Your task to perform on an android device: Open Google Maps Image 0: 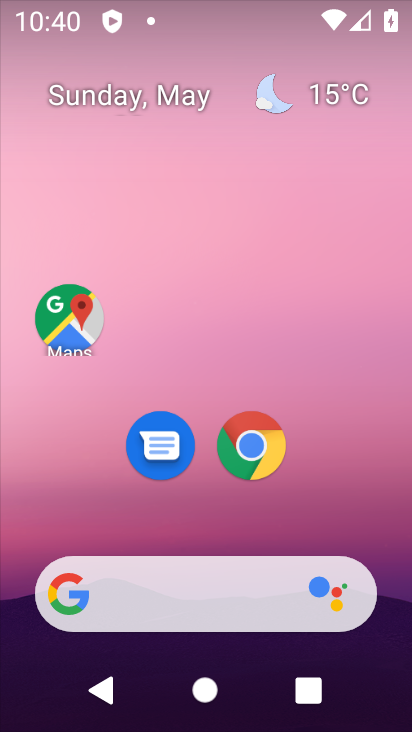
Step 0: click (52, 324)
Your task to perform on an android device: Open Google Maps Image 1: 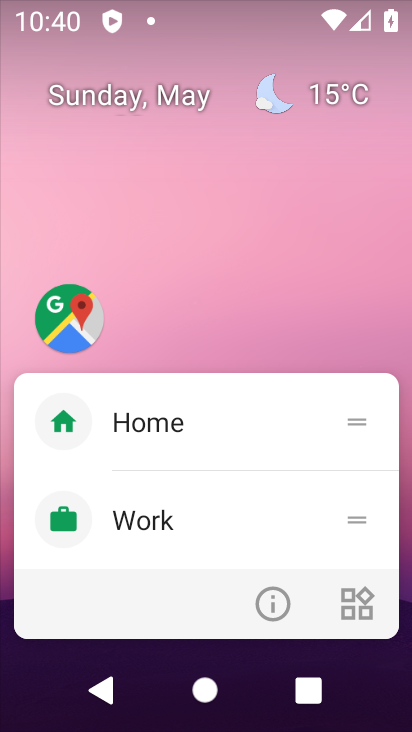
Step 1: click (61, 317)
Your task to perform on an android device: Open Google Maps Image 2: 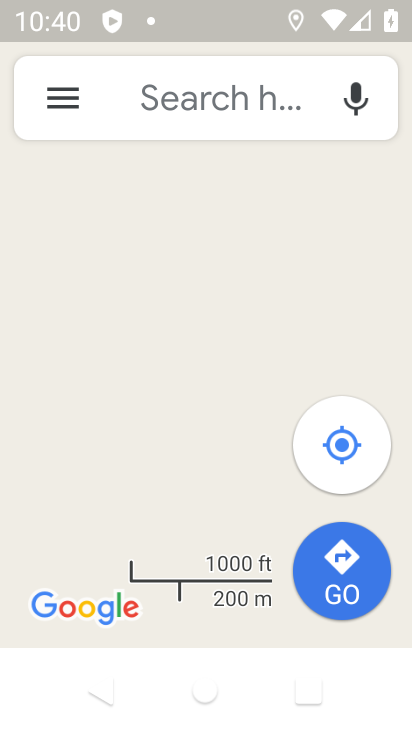
Step 2: task complete